Your task to perform on an android device: make emails show in primary in the gmail app Image 0: 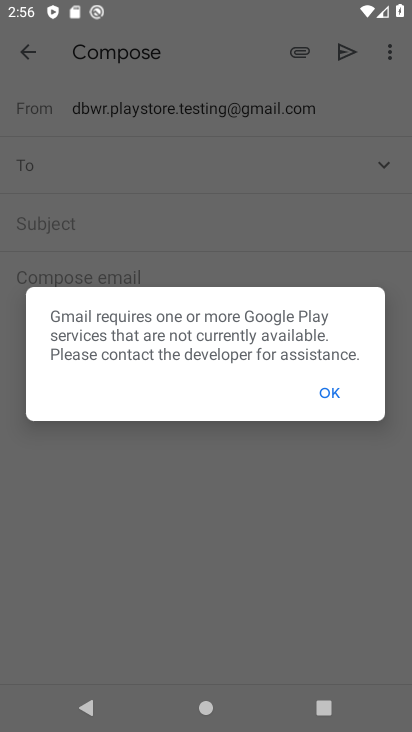
Step 0: press home button
Your task to perform on an android device: make emails show in primary in the gmail app Image 1: 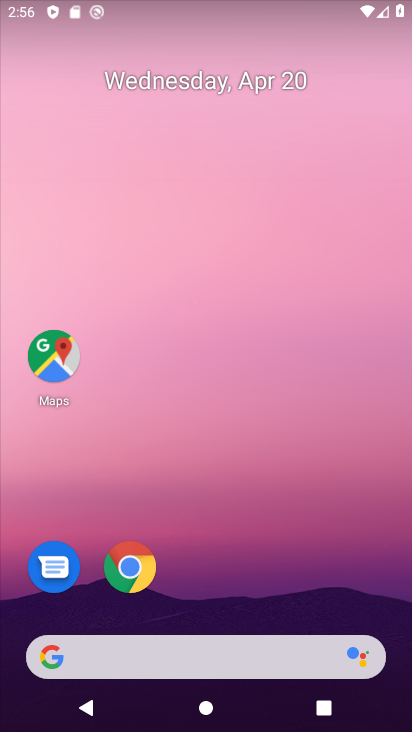
Step 1: drag from (216, 597) to (342, 0)
Your task to perform on an android device: make emails show in primary in the gmail app Image 2: 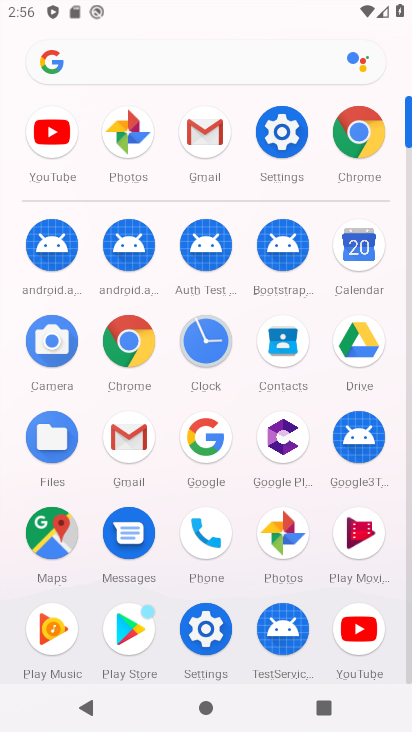
Step 2: click (122, 439)
Your task to perform on an android device: make emails show in primary in the gmail app Image 3: 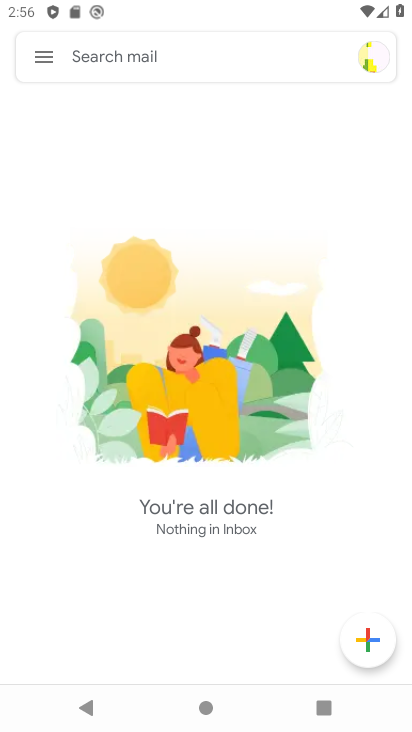
Step 3: click (32, 52)
Your task to perform on an android device: make emails show in primary in the gmail app Image 4: 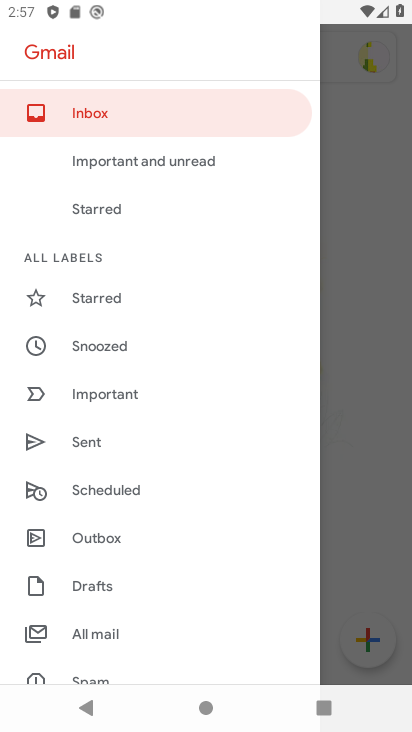
Step 4: drag from (105, 501) to (202, 113)
Your task to perform on an android device: make emails show in primary in the gmail app Image 5: 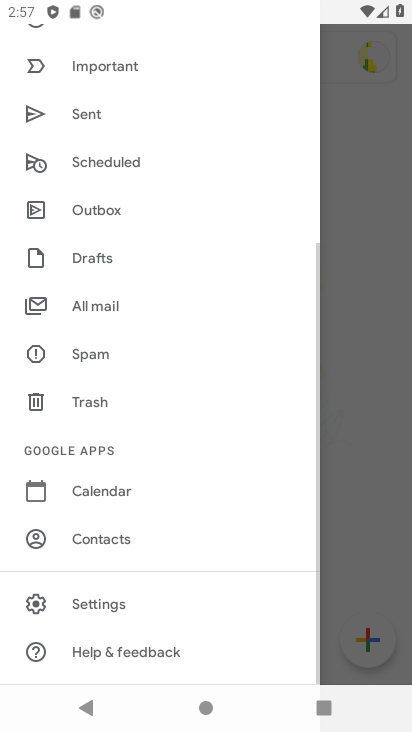
Step 5: click (97, 603)
Your task to perform on an android device: make emails show in primary in the gmail app Image 6: 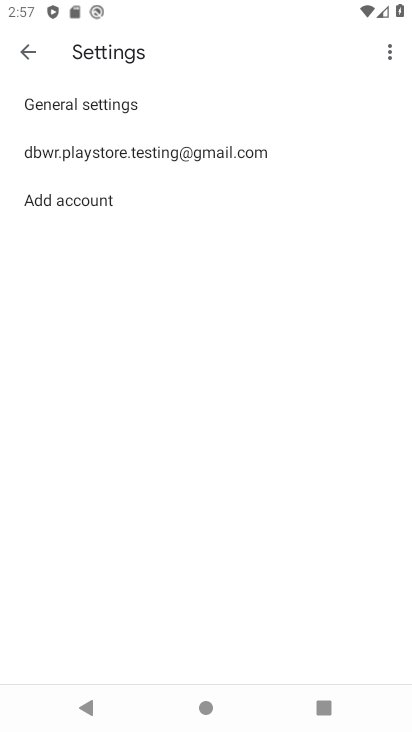
Step 6: click (124, 150)
Your task to perform on an android device: make emails show in primary in the gmail app Image 7: 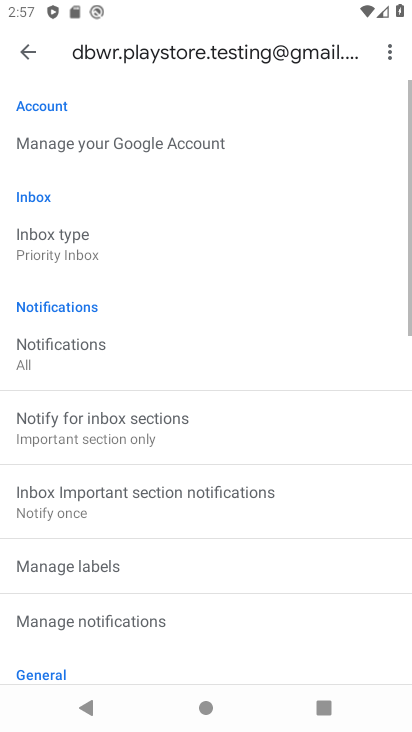
Step 7: click (87, 262)
Your task to perform on an android device: make emails show in primary in the gmail app Image 8: 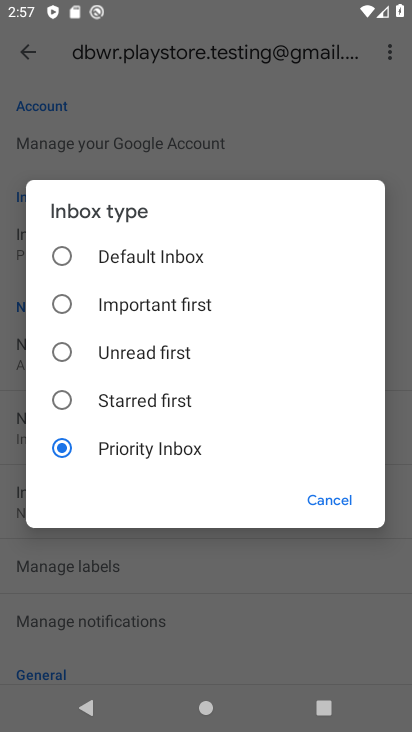
Step 8: click (71, 254)
Your task to perform on an android device: make emails show in primary in the gmail app Image 9: 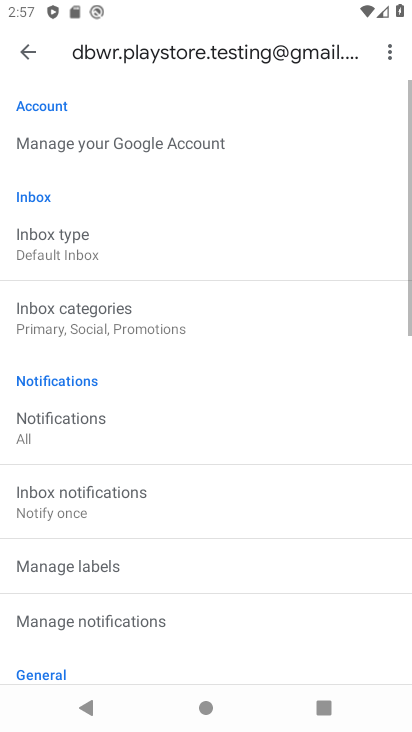
Step 9: click (80, 322)
Your task to perform on an android device: make emails show in primary in the gmail app Image 10: 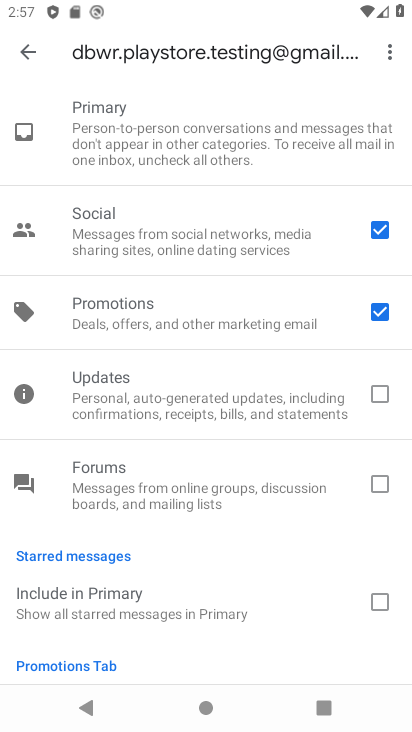
Step 10: click (368, 310)
Your task to perform on an android device: make emails show in primary in the gmail app Image 11: 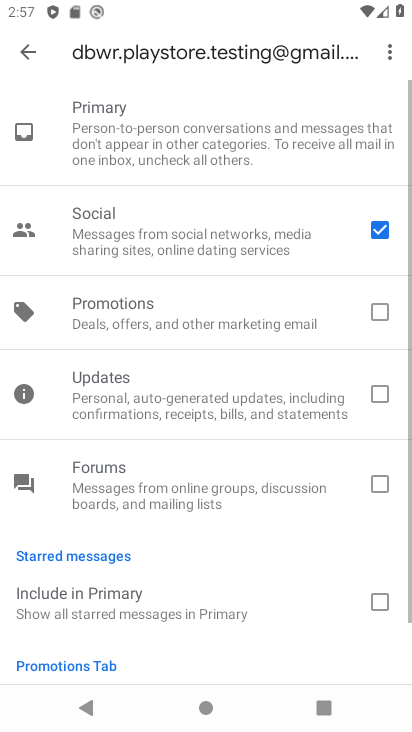
Step 11: click (375, 224)
Your task to perform on an android device: make emails show in primary in the gmail app Image 12: 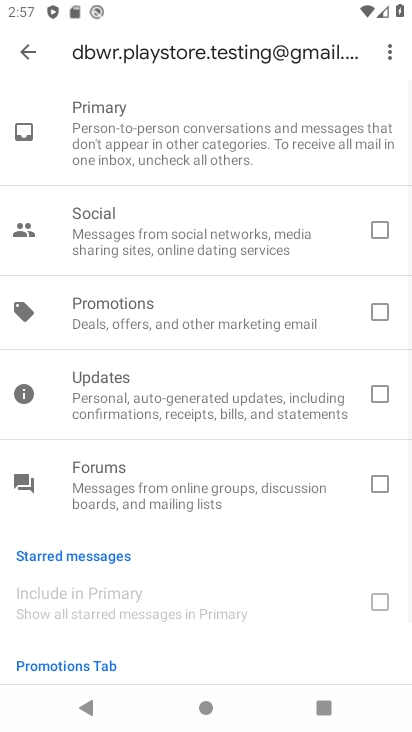
Step 12: task complete